Your task to perform on an android device: Open the web browser Image 0: 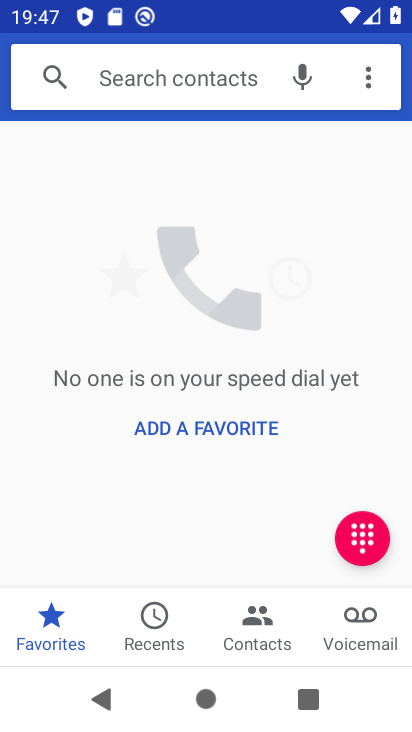
Step 0: press home button
Your task to perform on an android device: Open the web browser Image 1: 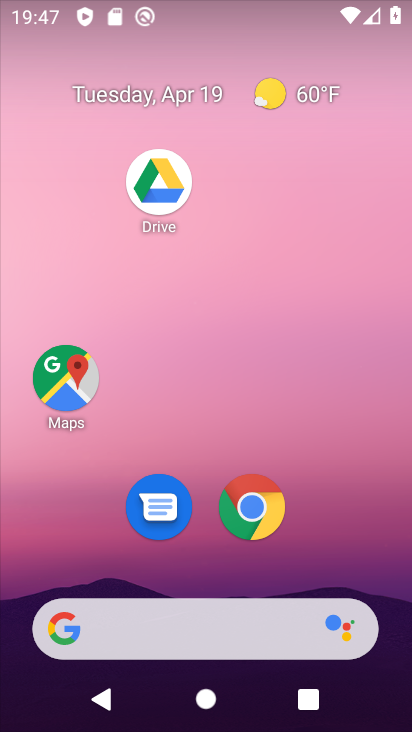
Step 1: click (264, 515)
Your task to perform on an android device: Open the web browser Image 2: 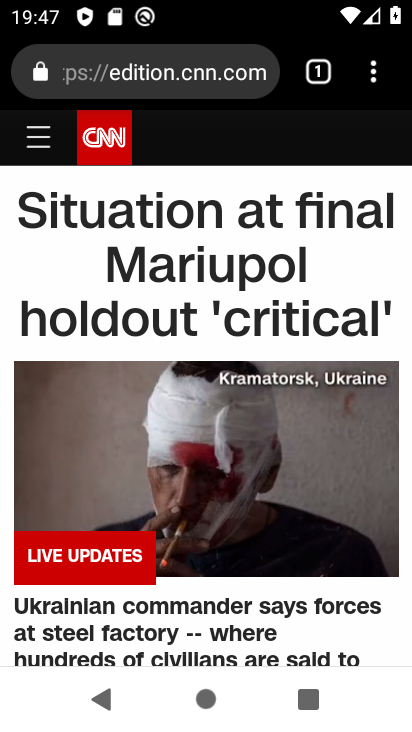
Step 2: click (375, 76)
Your task to perform on an android device: Open the web browser Image 3: 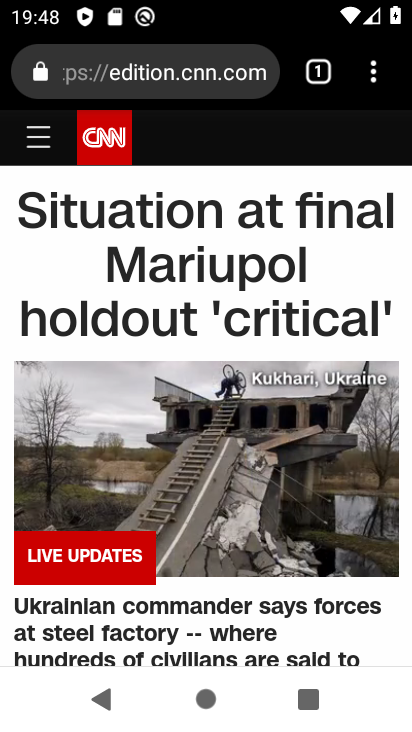
Step 3: click (371, 79)
Your task to perform on an android device: Open the web browser Image 4: 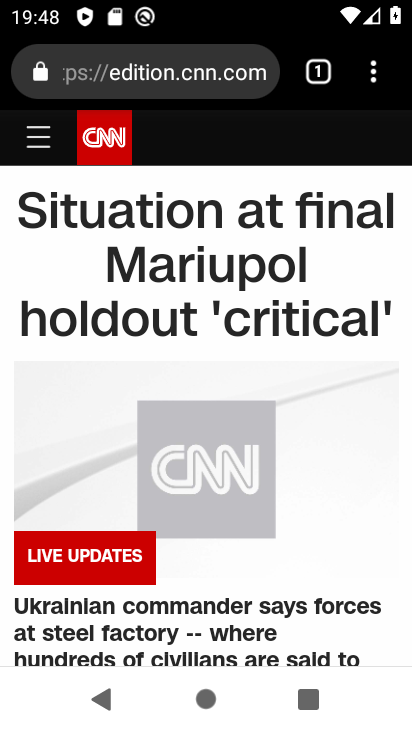
Step 4: click (371, 79)
Your task to perform on an android device: Open the web browser Image 5: 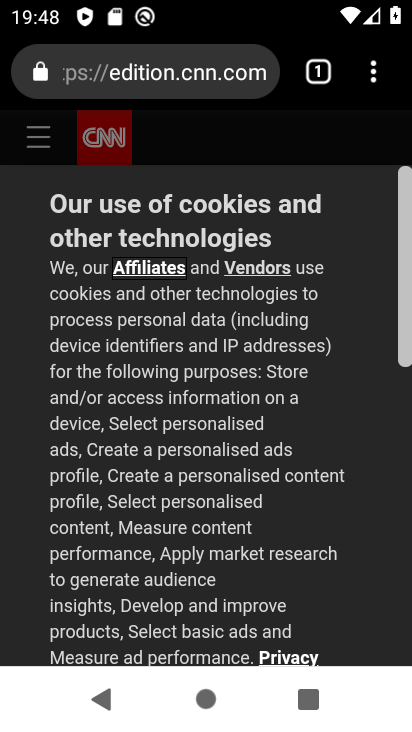
Step 5: click (371, 79)
Your task to perform on an android device: Open the web browser Image 6: 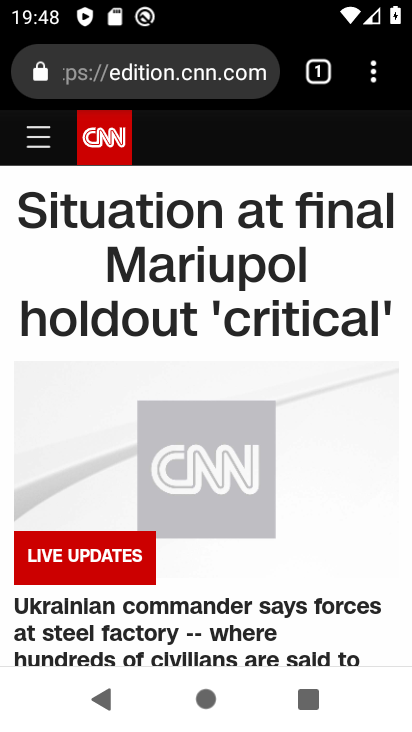
Step 6: click (373, 73)
Your task to perform on an android device: Open the web browser Image 7: 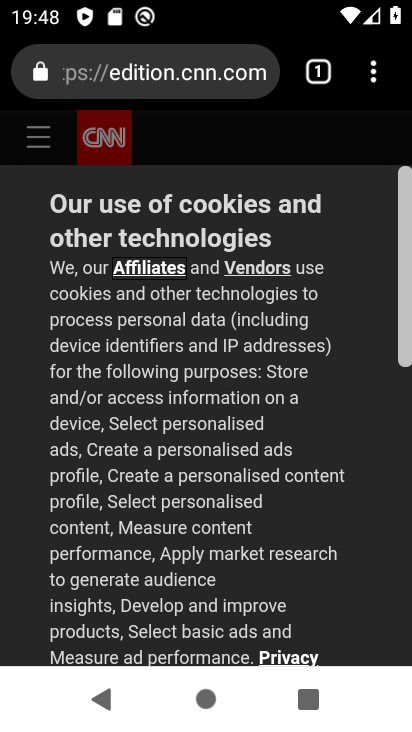
Step 7: click (373, 73)
Your task to perform on an android device: Open the web browser Image 8: 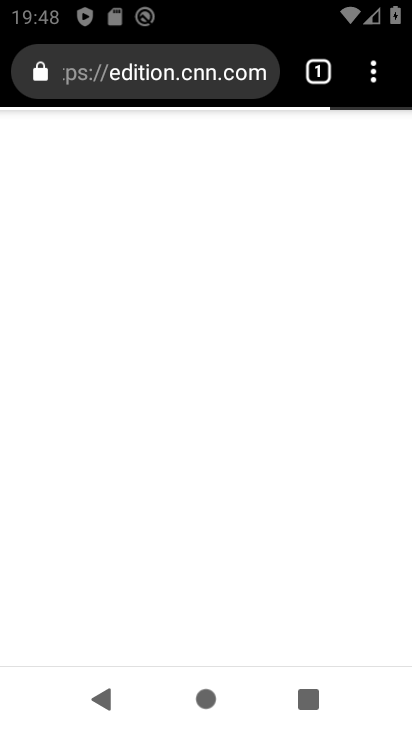
Step 8: task complete